Your task to perform on an android device: What's the weather going to be tomorrow? Image 0: 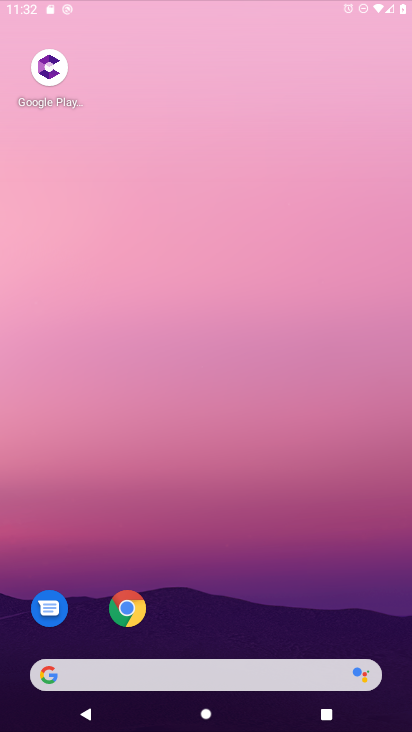
Step 0: click (72, 91)
Your task to perform on an android device: What's the weather going to be tomorrow? Image 1: 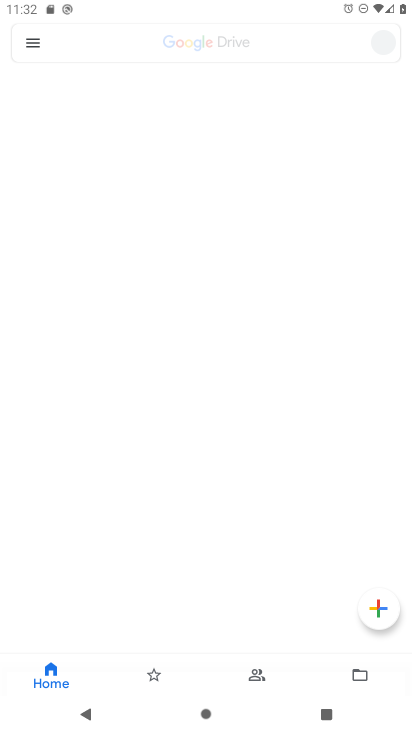
Step 1: drag from (277, 592) to (205, 100)
Your task to perform on an android device: What's the weather going to be tomorrow? Image 2: 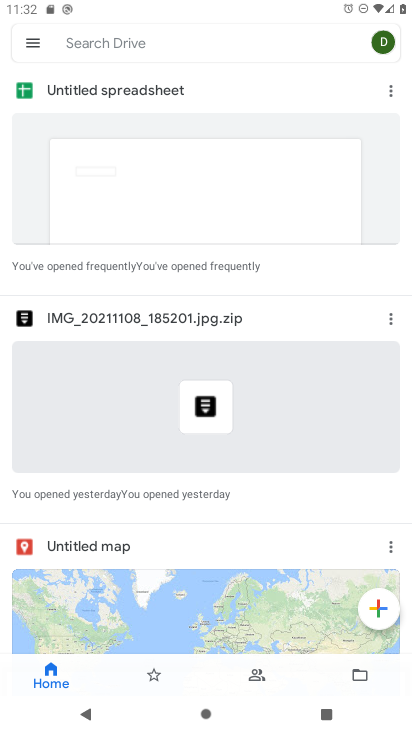
Step 2: press back button
Your task to perform on an android device: What's the weather going to be tomorrow? Image 3: 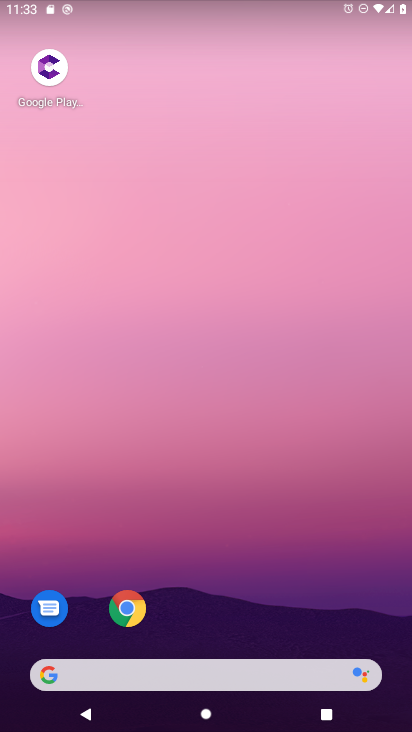
Step 3: drag from (15, 199) to (405, 427)
Your task to perform on an android device: What's the weather going to be tomorrow? Image 4: 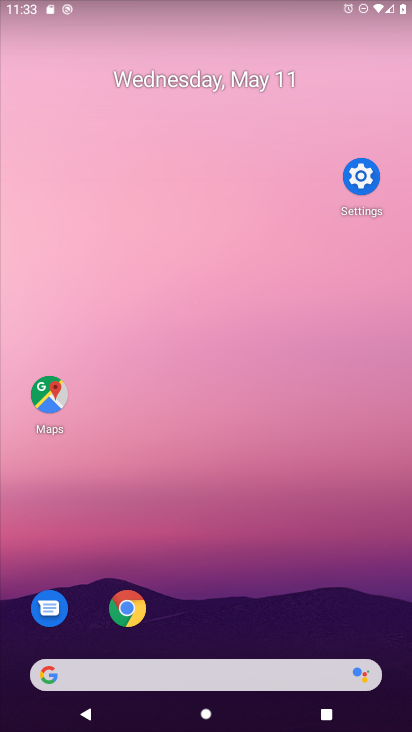
Step 4: drag from (37, 202) to (397, 471)
Your task to perform on an android device: What's the weather going to be tomorrow? Image 5: 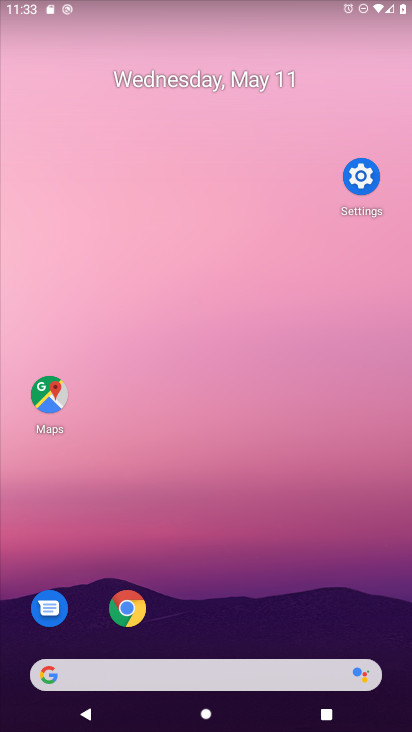
Step 5: drag from (0, 278) to (385, 523)
Your task to perform on an android device: What's the weather going to be tomorrow? Image 6: 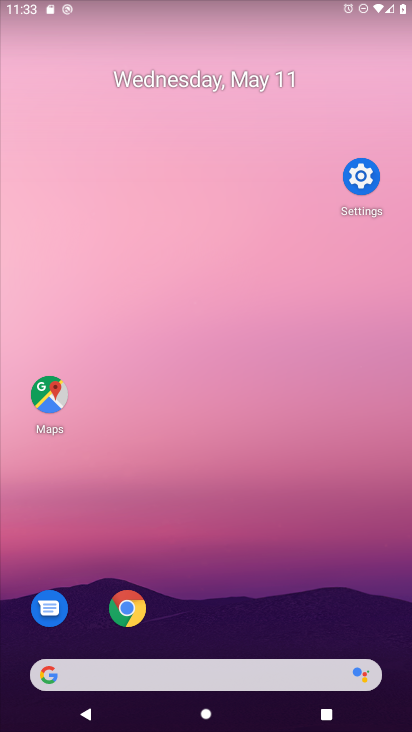
Step 6: drag from (7, 236) to (346, 425)
Your task to perform on an android device: What's the weather going to be tomorrow? Image 7: 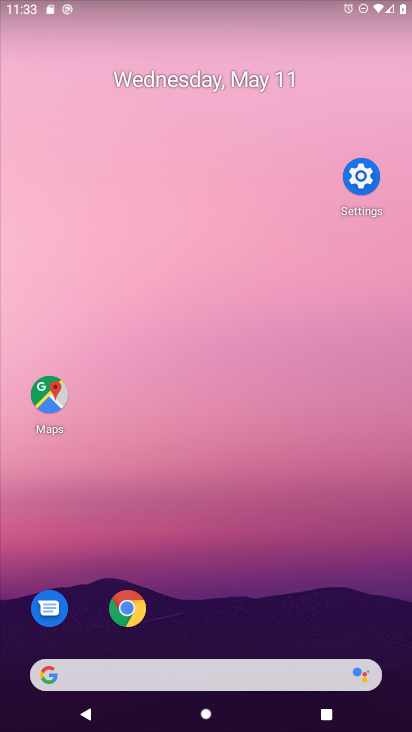
Step 7: drag from (10, 237) to (386, 406)
Your task to perform on an android device: What's the weather going to be tomorrow? Image 8: 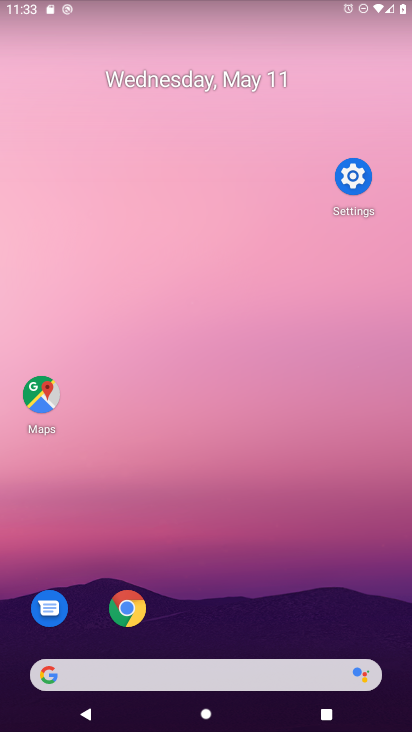
Step 8: drag from (55, 239) to (396, 359)
Your task to perform on an android device: What's the weather going to be tomorrow? Image 9: 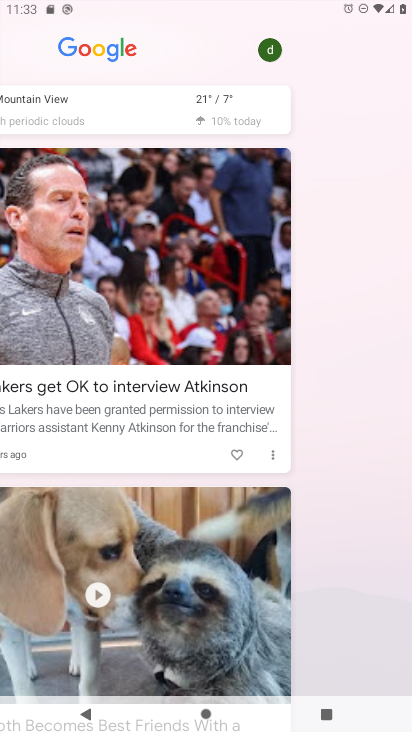
Step 9: drag from (109, 241) to (408, 419)
Your task to perform on an android device: What's the weather going to be tomorrow? Image 10: 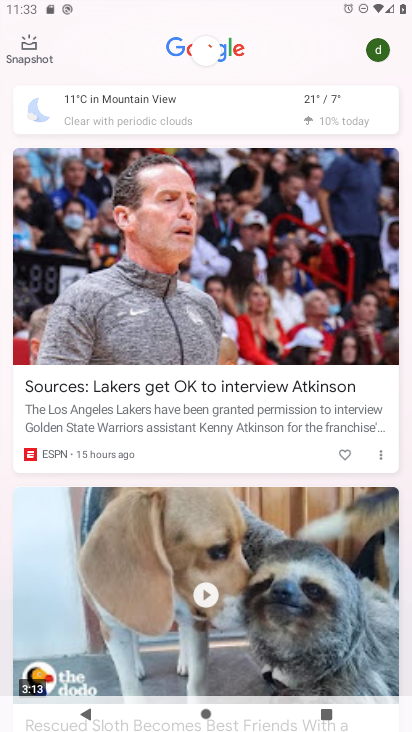
Step 10: click (163, 112)
Your task to perform on an android device: What's the weather going to be tomorrow? Image 11: 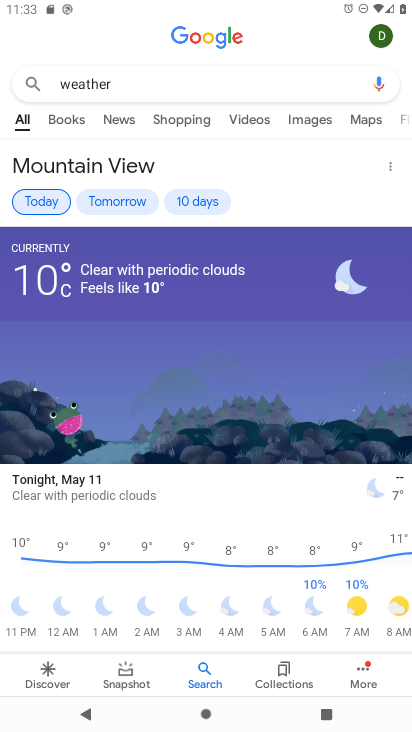
Step 11: click (107, 188)
Your task to perform on an android device: What's the weather going to be tomorrow? Image 12: 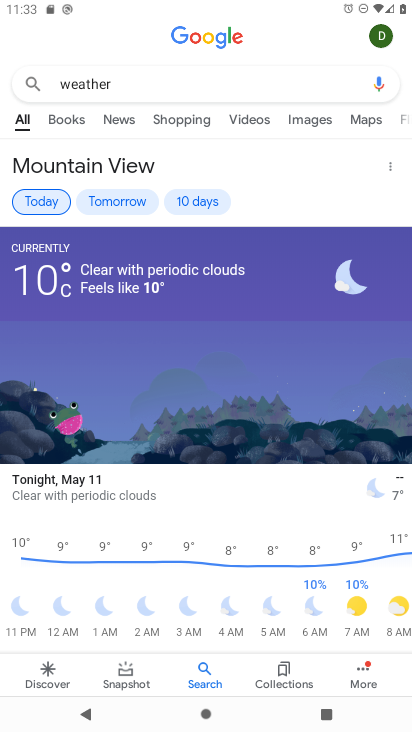
Step 12: click (117, 206)
Your task to perform on an android device: What's the weather going to be tomorrow? Image 13: 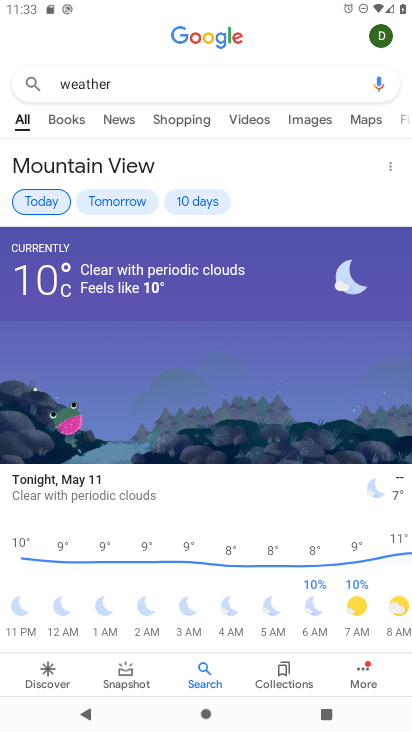
Step 13: click (118, 207)
Your task to perform on an android device: What's the weather going to be tomorrow? Image 14: 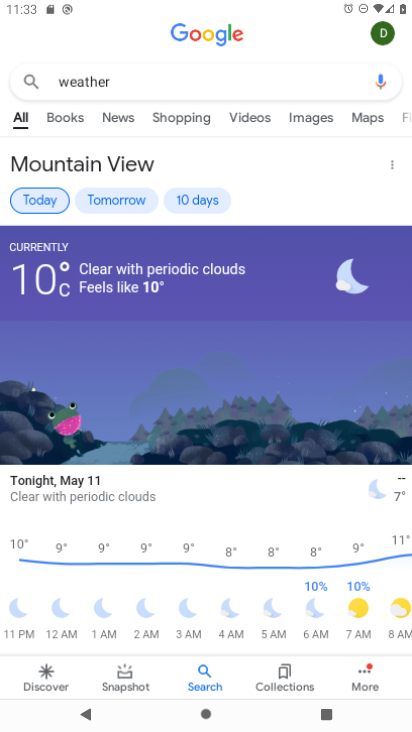
Step 14: click (118, 207)
Your task to perform on an android device: What's the weather going to be tomorrow? Image 15: 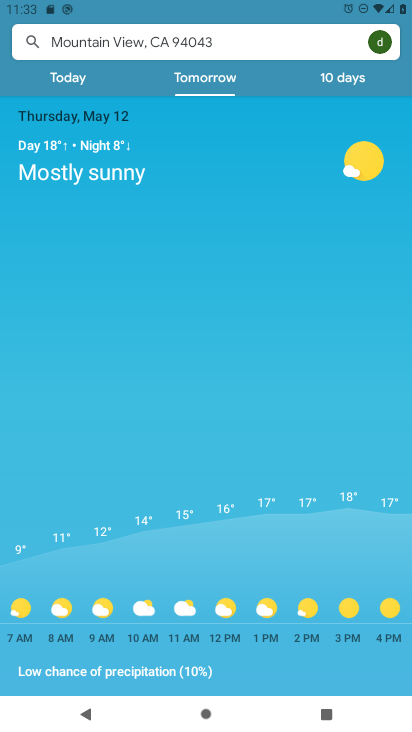
Step 15: task complete